Your task to perform on an android device: Open Google Chrome and click the shortcut for Amazon.com Image 0: 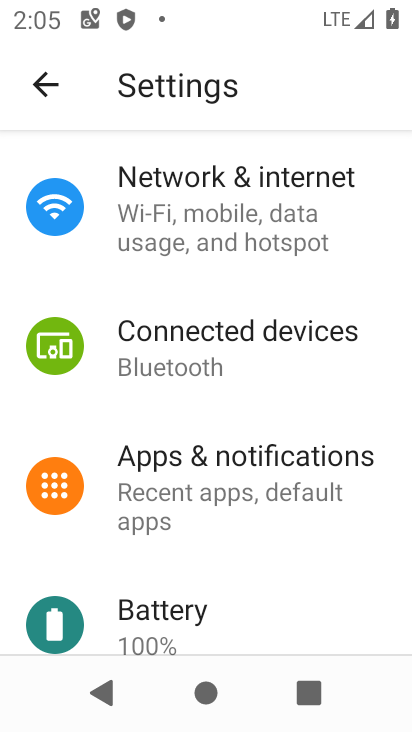
Step 0: press home button
Your task to perform on an android device: Open Google Chrome and click the shortcut for Amazon.com Image 1: 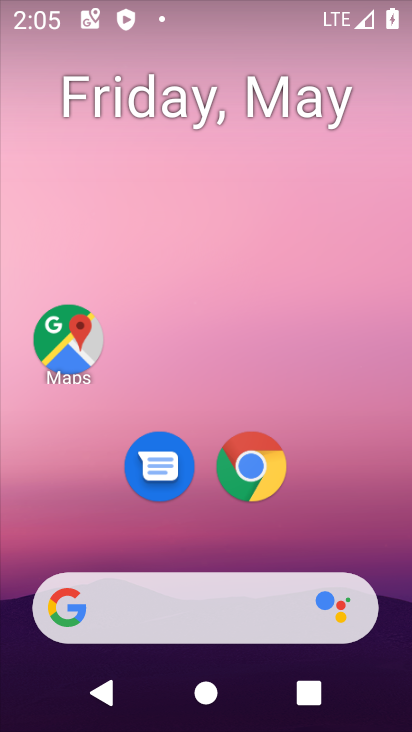
Step 1: drag from (264, 524) to (231, 63)
Your task to perform on an android device: Open Google Chrome and click the shortcut for Amazon.com Image 2: 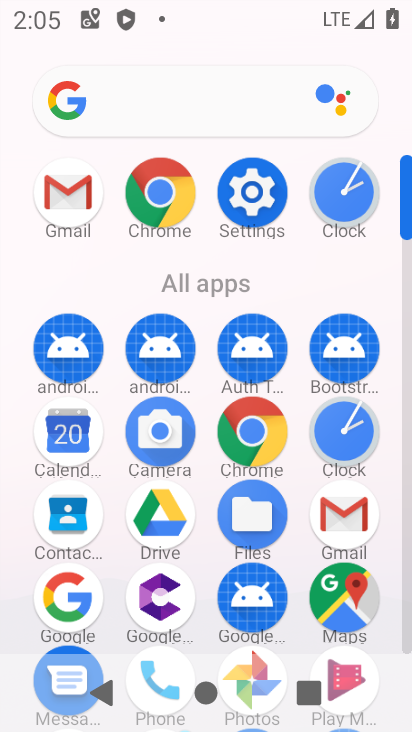
Step 2: click (167, 198)
Your task to perform on an android device: Open Google Chrome and click the shortcut for Amazon.com Image 3: 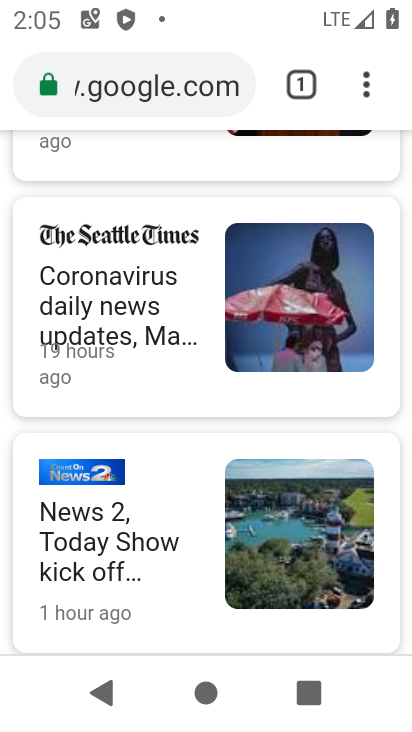
Step 3: drag from (366, 82) to (94, 162)
Your task to perform on an android device: Open Google Chrome and click the shortcut for Amazon.com Image 4: 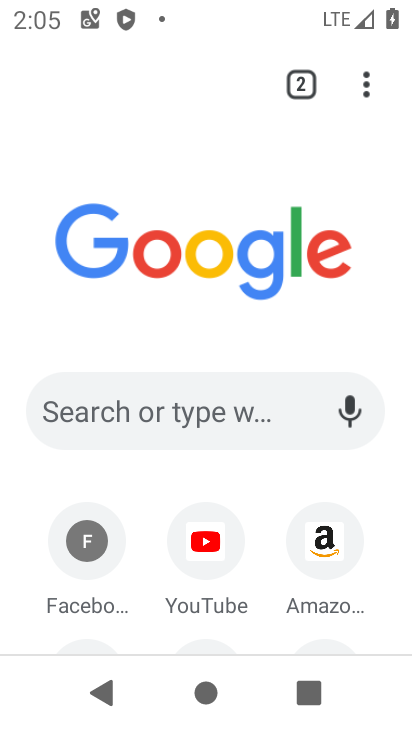
Step 4: click (331, 544)
Your task to perform on an android device: Open Google Chrome and click the shortcut for Amazon.com Image 5: 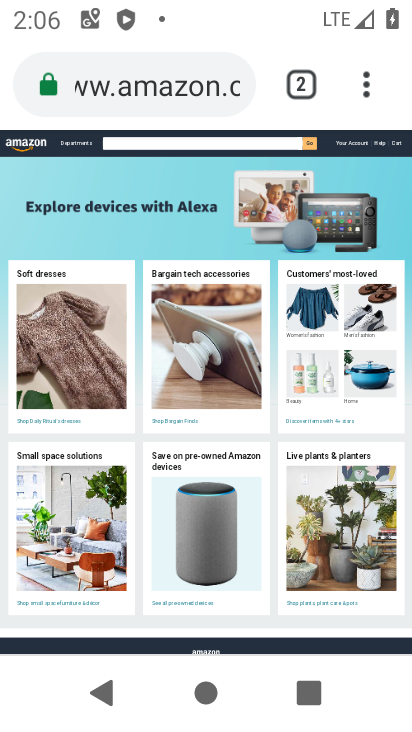
Step 5: task complete